Your task to perform on an android device: all mails in gmail Image 0: 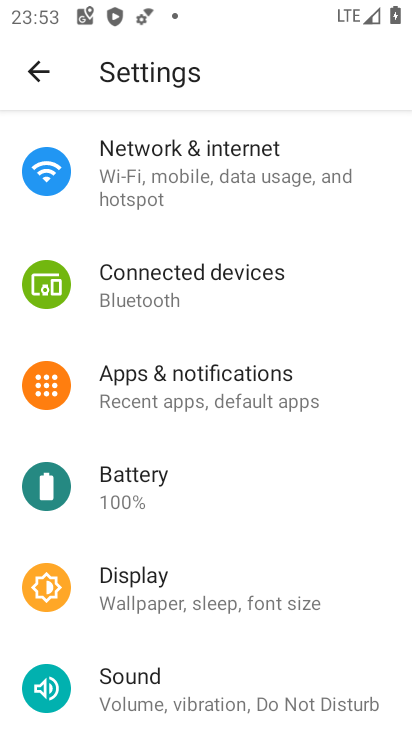
Step 0: press home button
Your task to perform on an android device: all mails in gmail Image 1: 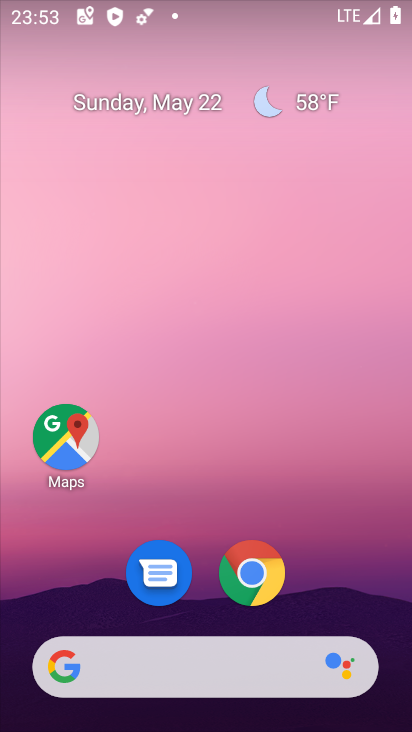
Step 1: drag from (205, 613) to (275, 30)
Your task to perform on an android device: all mails in gmail Image 2: 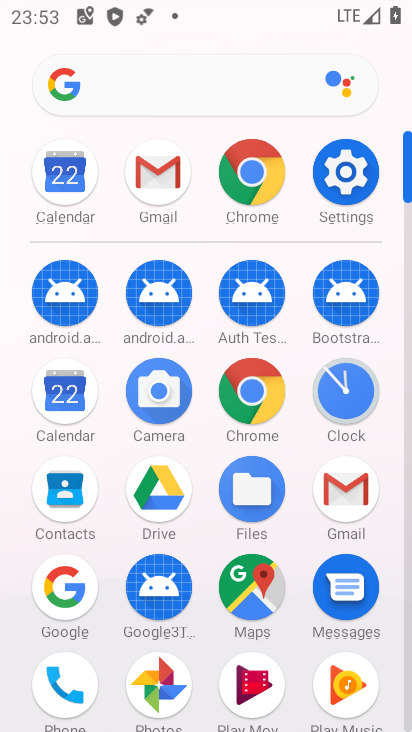
Step 2: click (361, 492)
Your task to perform on an android device: all mails in gmail Image 3: 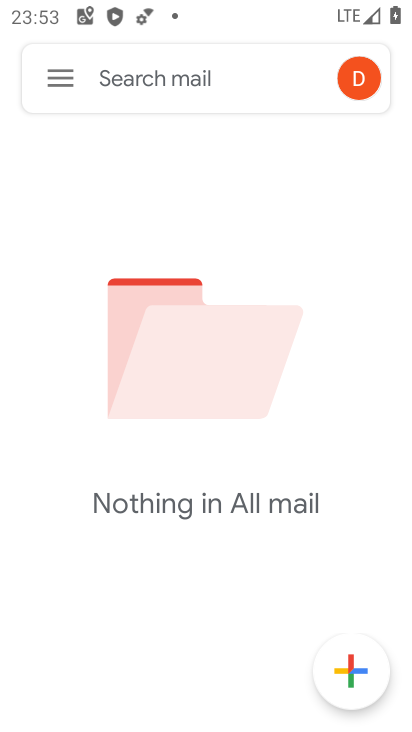
Step 3: task complete